Your task to perform on an android device: toggle airplane mode Image 0: 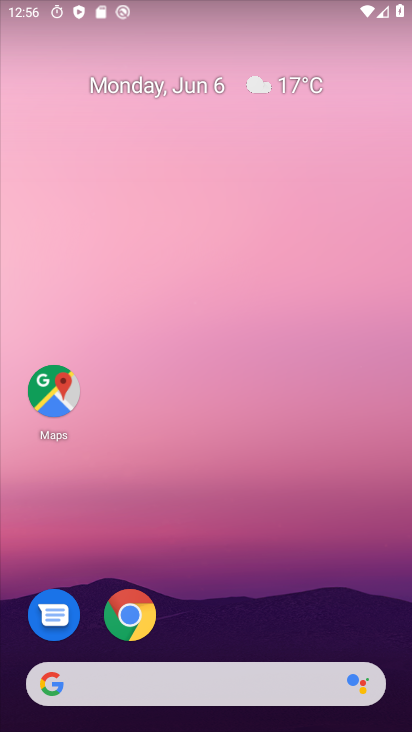
Step 0: click (207, 348)
Your task to perform on an android device: toggle airplane mode Image 1: 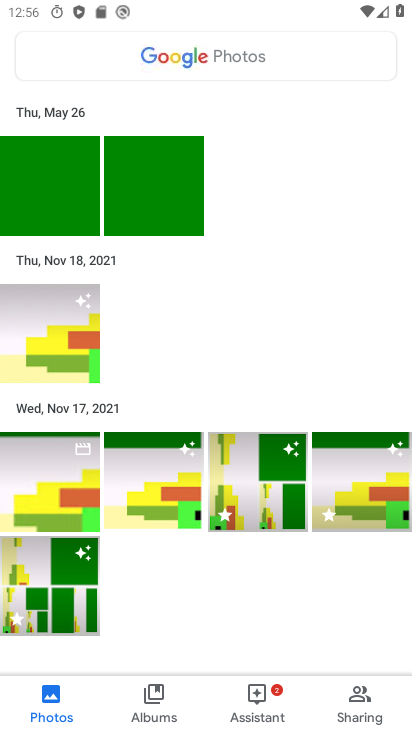
Step 1: drag from (180, 570) to (333, 32)
Your task to perform on an android device: toggle airplane mode Image 2: 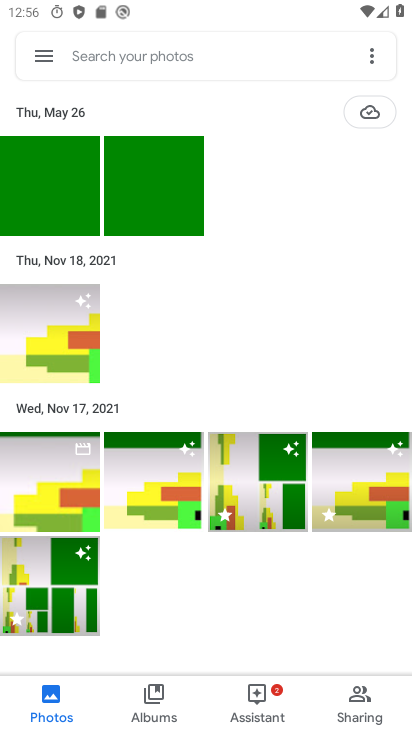
Step 2: drag from (159, 645) to (252, 292)
Your task to perform on an android device: toggle airplane mode Image 3: 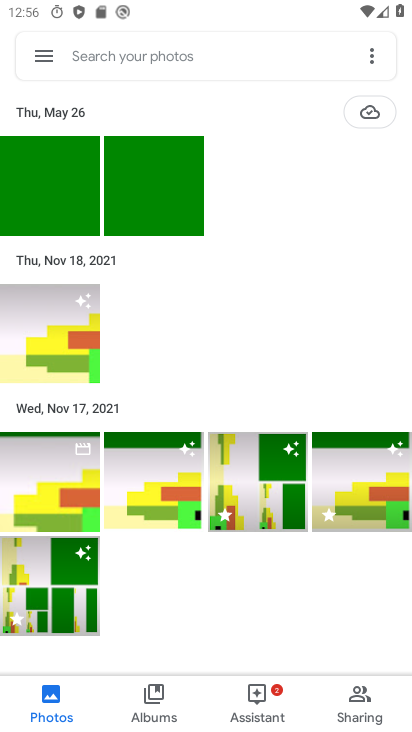
Step 3: press home button
Your task to perform on an android device: toggle airplane mode Image 4: 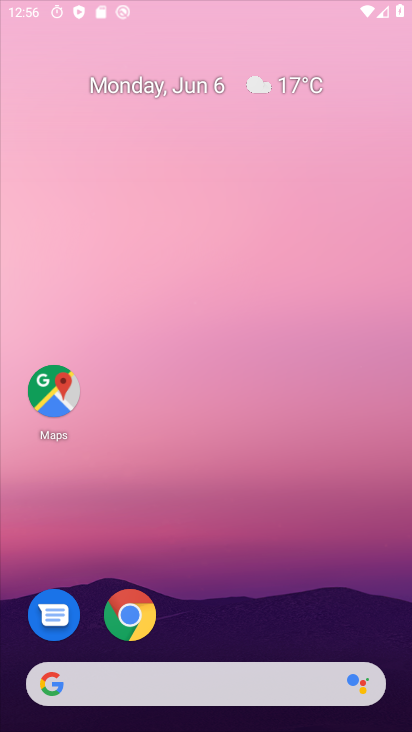
Step 4: drag from (220, 611) to (308, 184)
Your task to perform on an android device: toggle airplane mode Image 5: 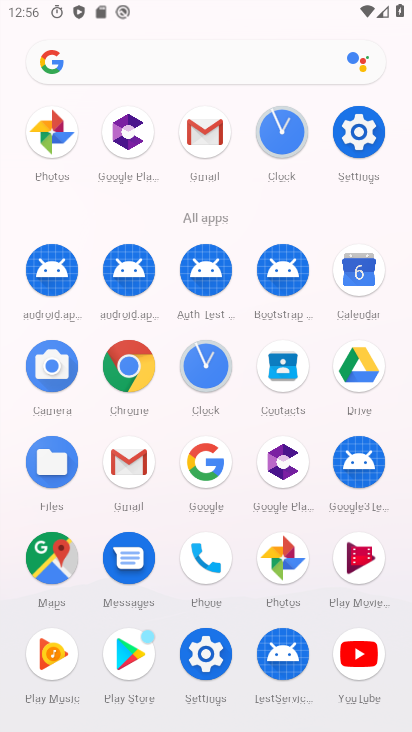
Step 5: click (364, 139)
Your task to perform on an android device: toggle airplane mode Image 6: 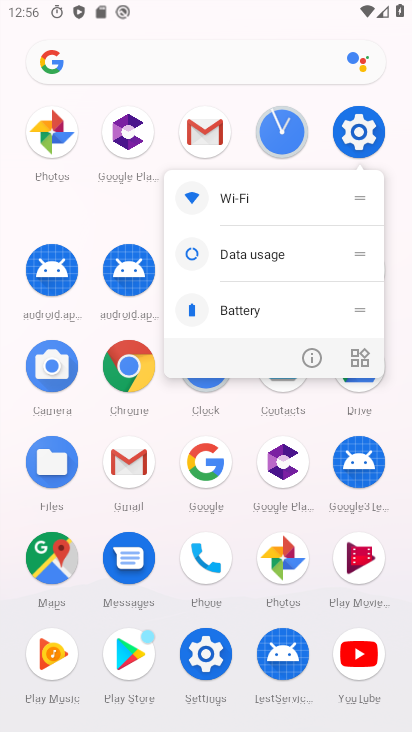
Step 6: click (316, 348)
Your task to perform on an android device: toggle airplane mode Image 7: 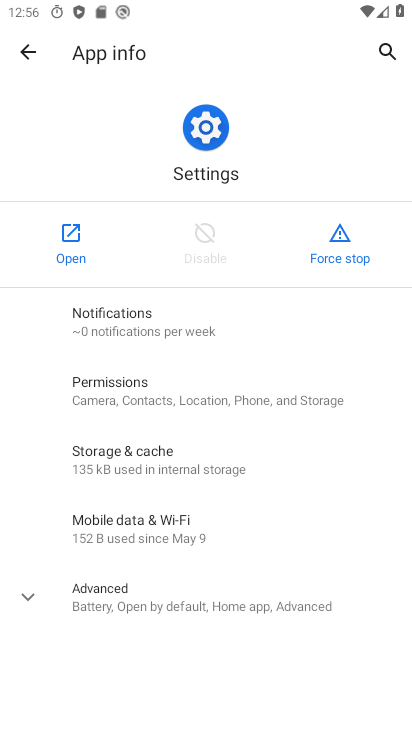
Step 7: click (62, 259)
Your task to perform on an android device: toggle airplane mode Image 8: 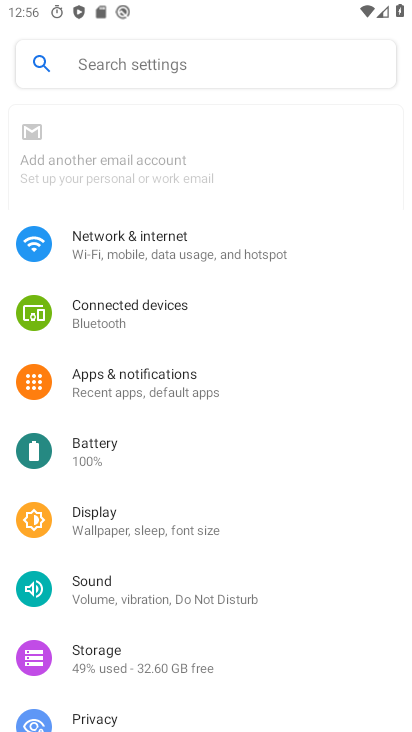
Step 8: drag from (207, 544) to (250, 154)
Your task to perform on an android device: toggle airplane mode Image 9: 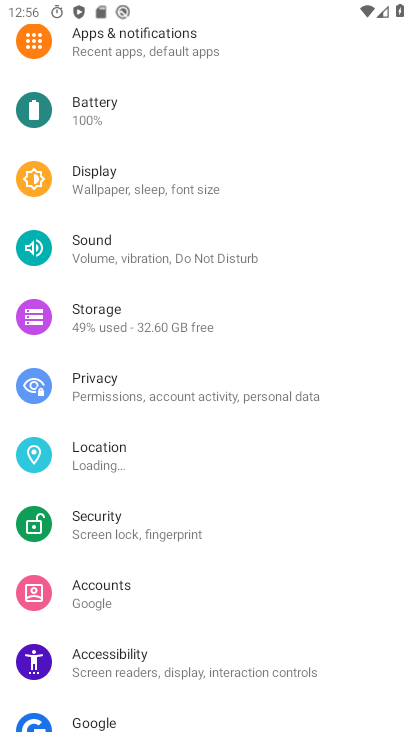
Step 9: drag from (229, 362) to (220, 147)
Your task to perform on an android device: toggle airplane mode Image 10: 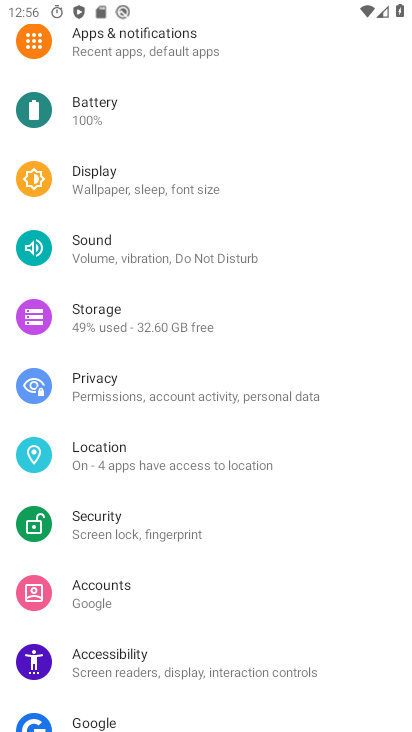
Step 10: drag from (199, 596) to (248, 277)
Your task to perform on an android device: toggle airplane mode Image 11: 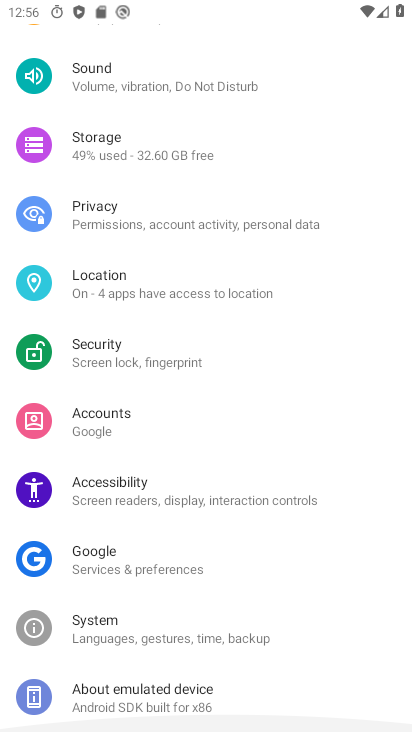
Step 11: drag from (218, 179) to (292, 660)
Your task to perform on an android device: toggle airplane mode Image 12: 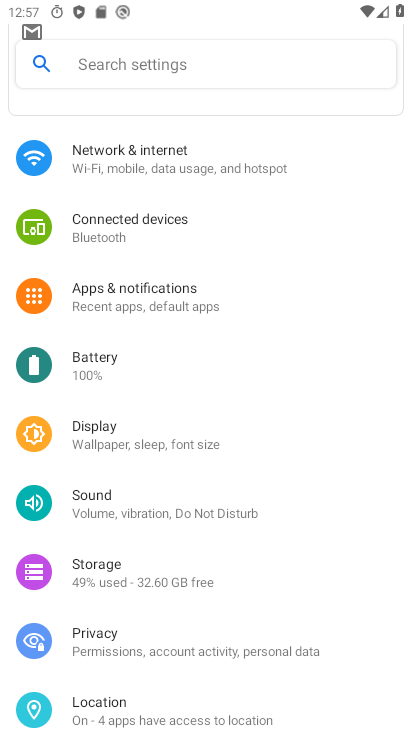
Step 12: click (151, 167)
Your task to perform on an android device: toggle airplane mode Image 13: 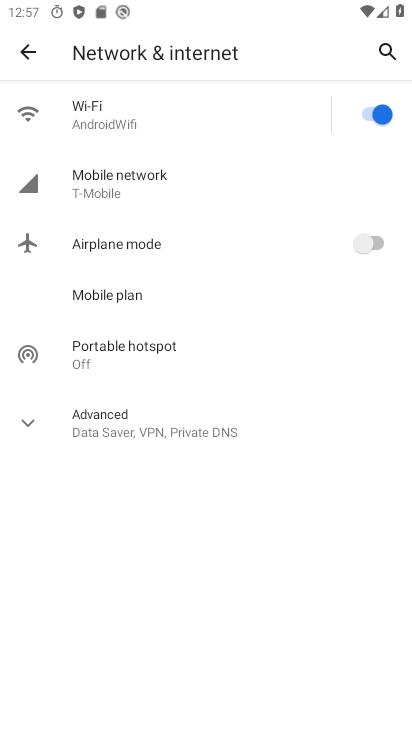
Step 13: click (269, 238)
Your task to perform on an android device: toggle airplane mode Image 14: 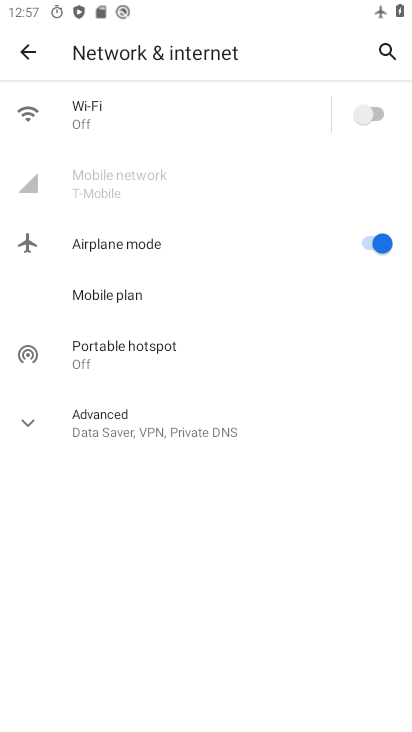
Step 14: task complete